Your task to perform on an android device: turn on data saver in the chrome app Image 0: 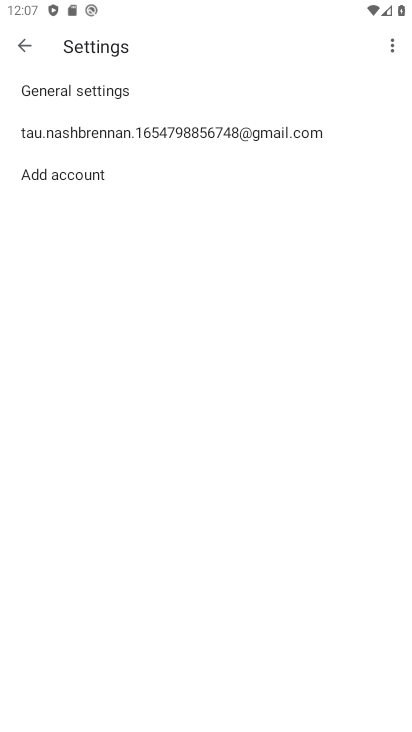
Step 0: press home button
Your task to perform on an android device: turn on data saver in the chrome app Image 1: 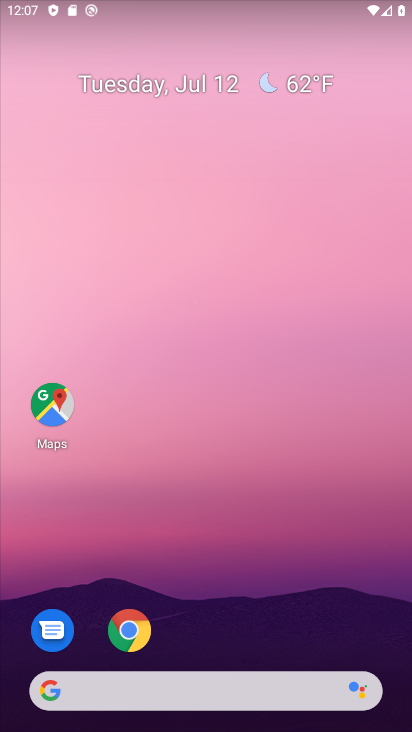
Step 1: click (126, 635)
Your task to perform on an android device: turn on data saver in the chrome app Image 2: 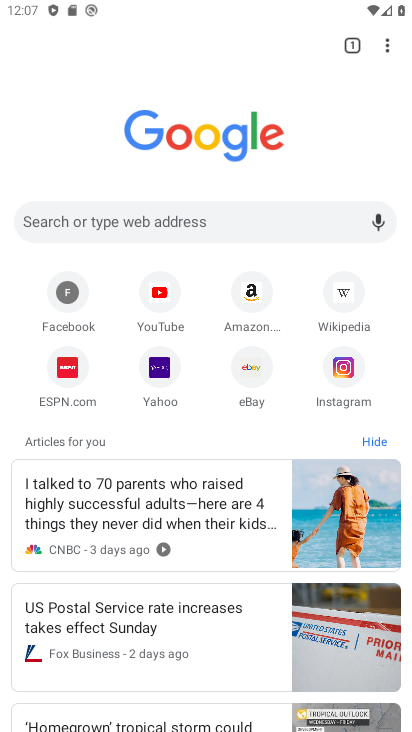
Step 2: click (387, 51)
Your task to perform on an android device: turn on data saver in the chrome app Image 3: 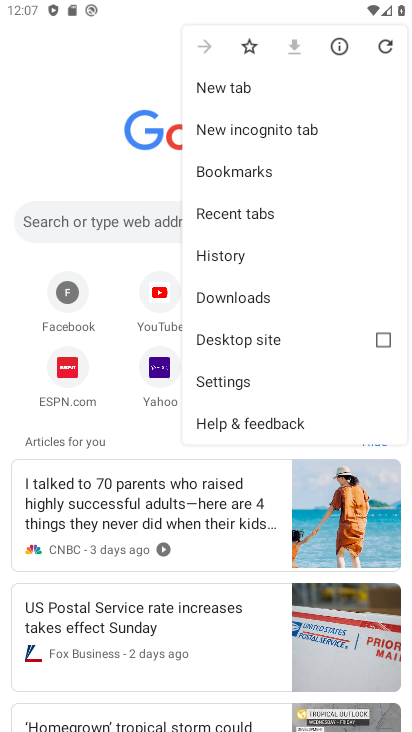
Step 3: click (205, 375)
Your task to perform on an android device: turn on data saver in the chrome app Image 4: 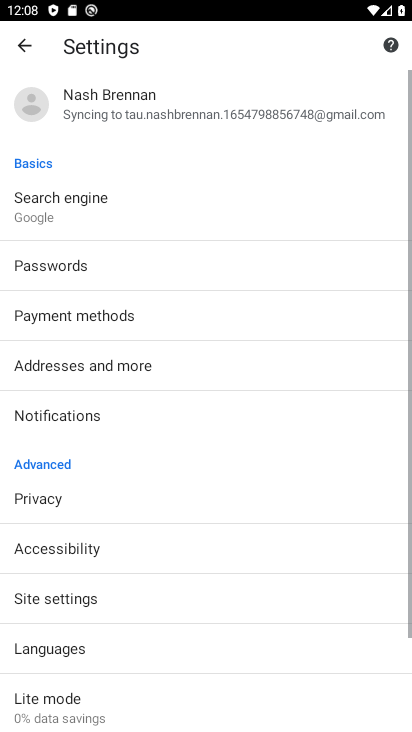
Step 4: drag from (56, 604) to (104, 347)
Your task to perform on an android device: turn on data saver in the chrome app Image 5: 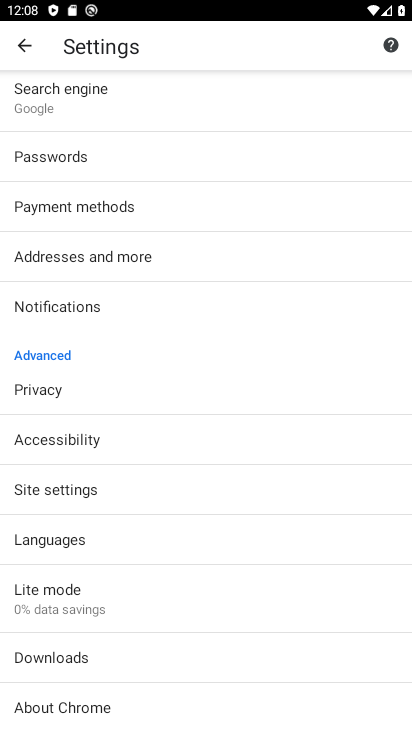
Step 5: click (75, 592)
Your task to perform on an android device: turn on data saver in the chrome app Image 6: 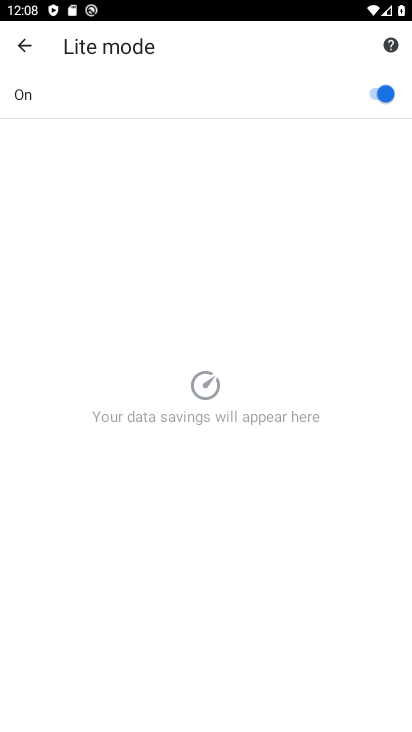
Step 6: task complete